Your task to perform on an android device: Turn on the flashlight Image 0: 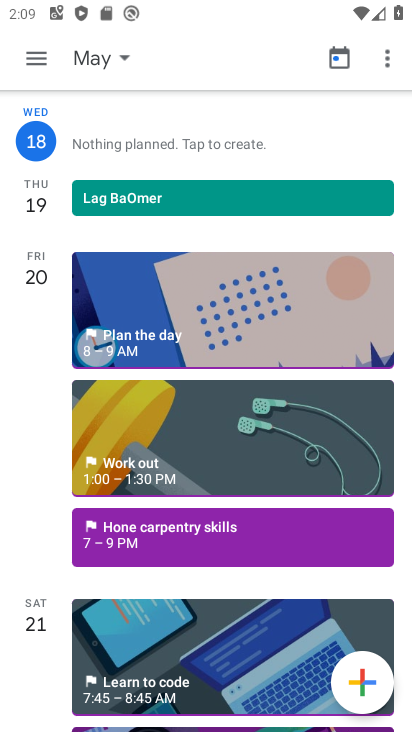
Step 0: drag from (246, 12) to (397, 641)
Your task to perform on an android device: Turn on the flashlight Image 1: 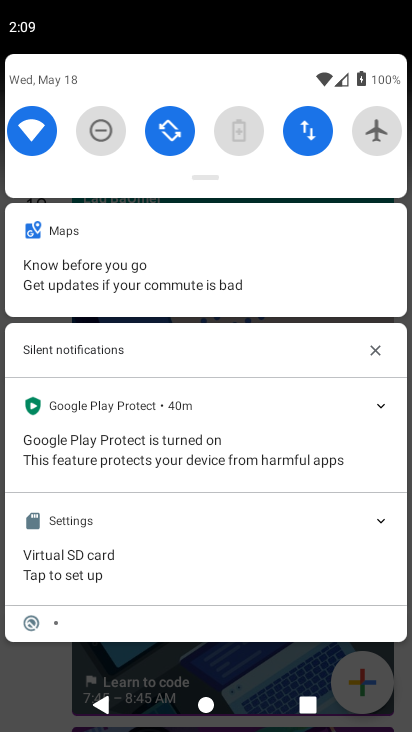
Step 1: drag from (222, 76) to (225, 638)
Your task to perform on an android device: Turn on the flashlight Image 2: 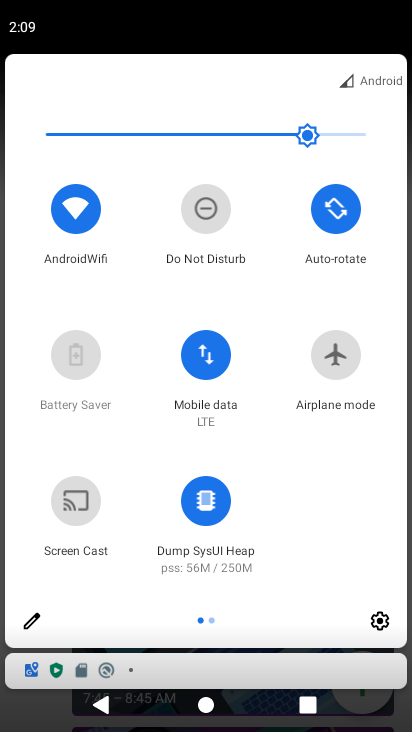
Step 2: click (381, 631)
Your task to perform on an android device: Turn on the flashlight Image 3: 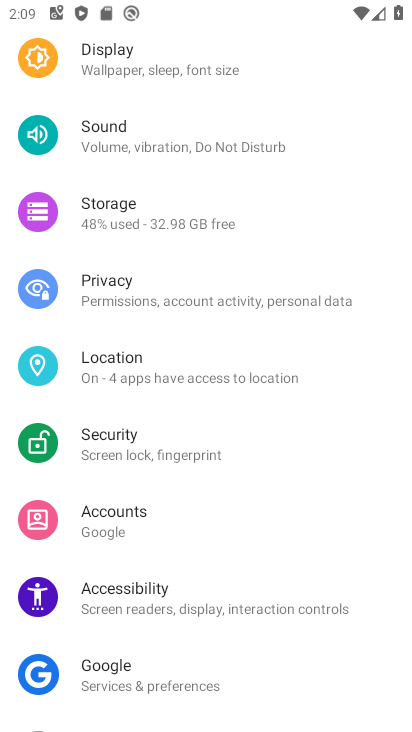
Step 3: task complete